Your task to perform on an android device: Show me popular games on the Play Store Image 0: 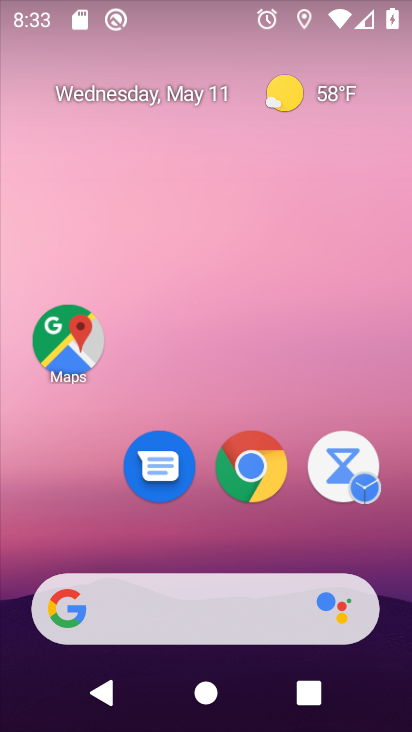
Step 0: drag from (288, 532) to (369, 77)
Your task to perform on an android device: Show me popular games on the Play Store Image 1: 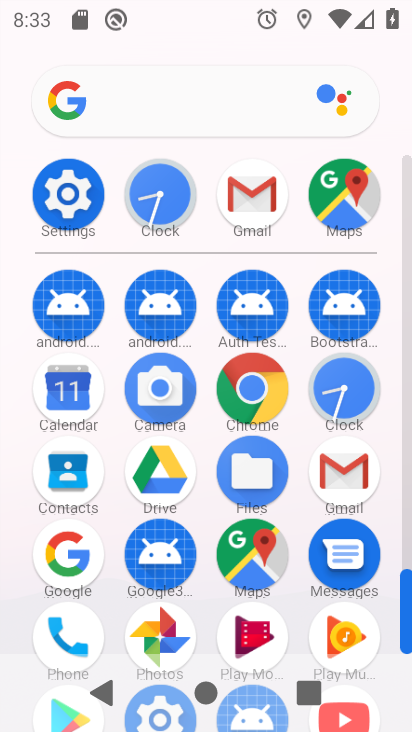
Step 1: drag from (200, 623) to (209, 398)
Your task to perform on an android device: Show me popular games on the Play Store Image 2: 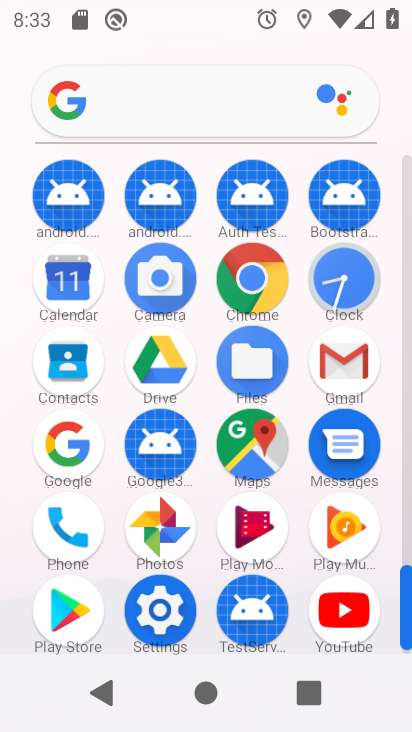
Step 2: click (73, 618)
Your task to perform on an android device: Show me popular games on the Play Store Image 3: 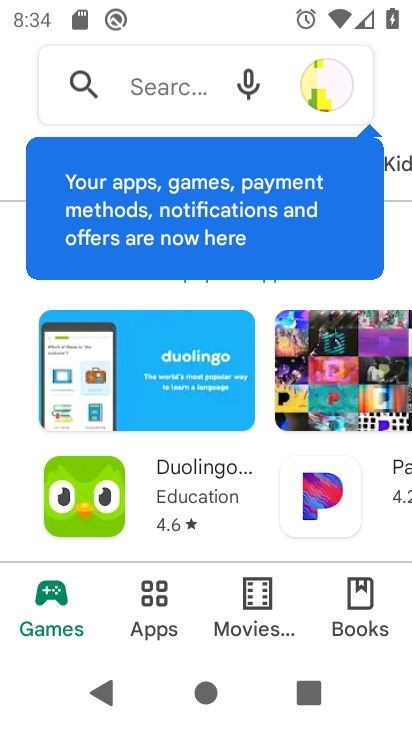
Step 3: drag from (397, 170) to (334, 181)
Your task to perform on an android device: Show me popular games on the Play Store Image 4: 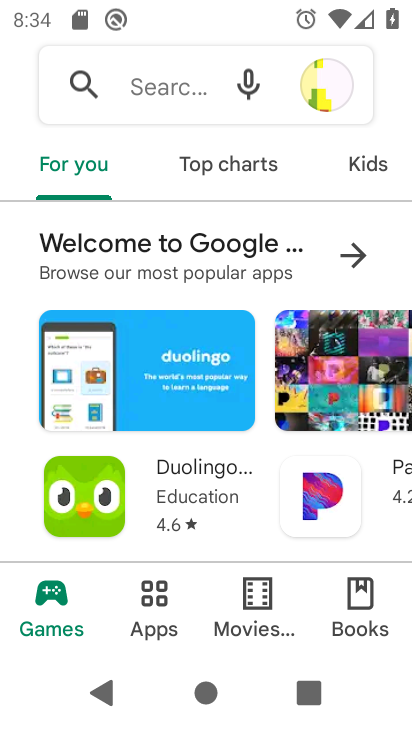
Step 4: drag from (246, 144) to (265, 115)
Your task to perform on an android device: Show me popular games on the Play Store Image 5: 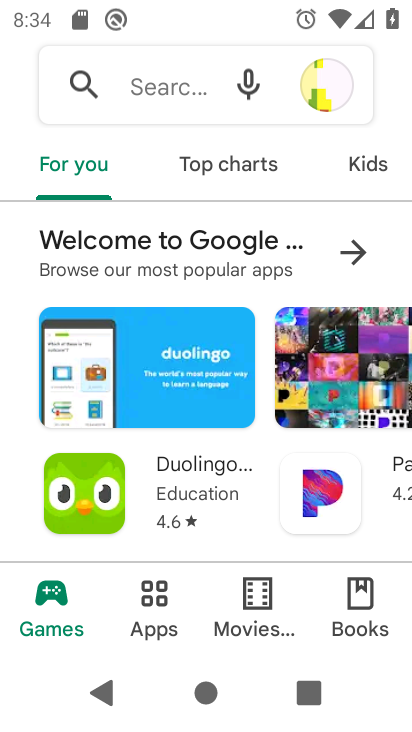
Step 5: click (257, 177)
Your task to perform on an android device: Show me popular games on the Play Store Image 6: 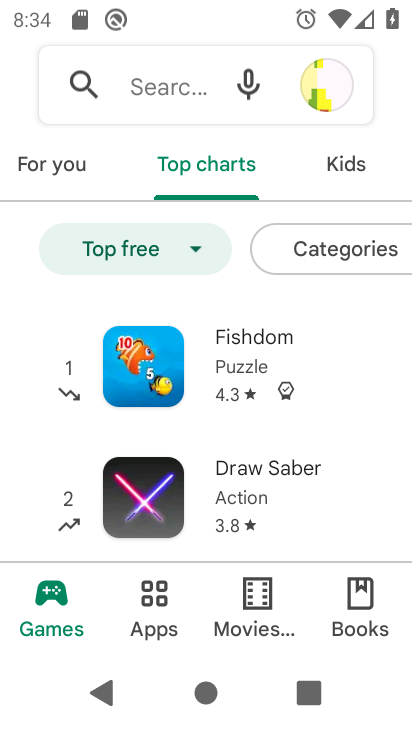
Step 6: task complete